Your task to perform on an android device: open app "WhatsApp Messenger" (install if not already installed) Image 0: 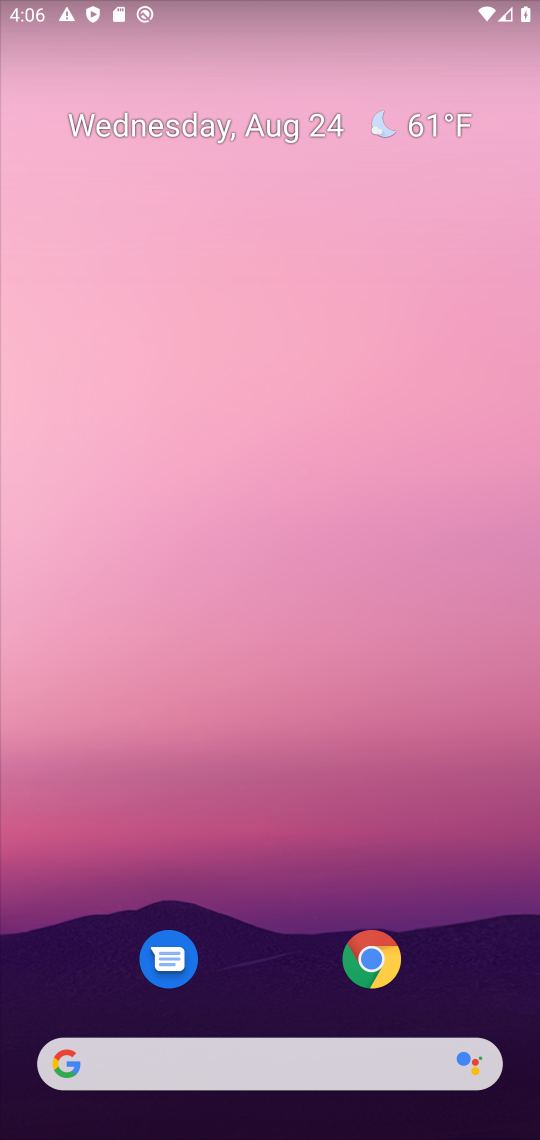
Step 0: drag from (279, 1025) to (260, 177)
Your task to perform on an android device: open app "WhatsApp Messenger" (install if not already installed) Image 1: 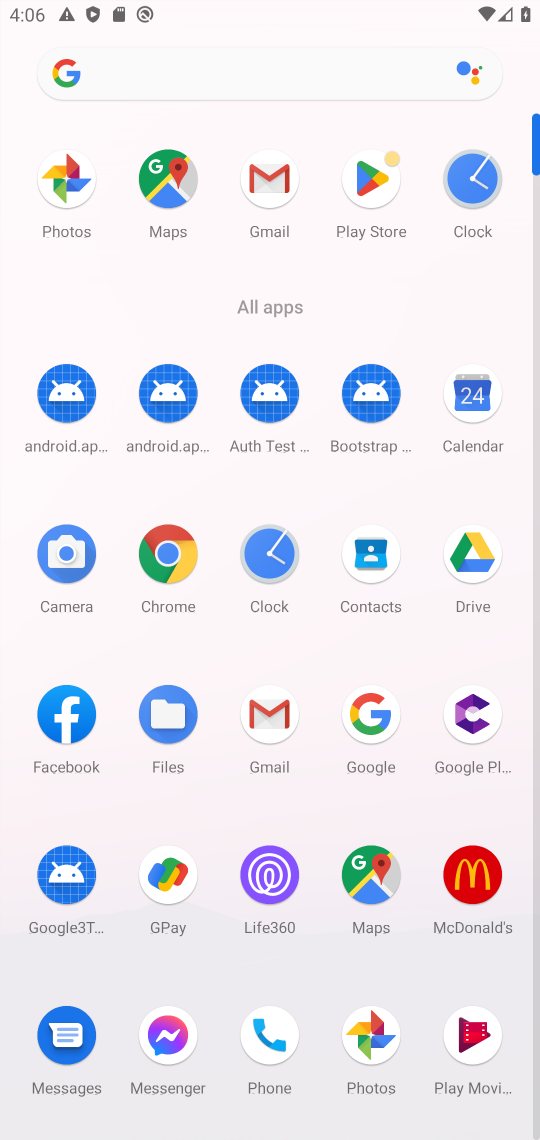
Step 1: click (370, 167)
Your task to perform on an android device: open app "WhatsApp Messenger" (install if not already installed) Image 2: 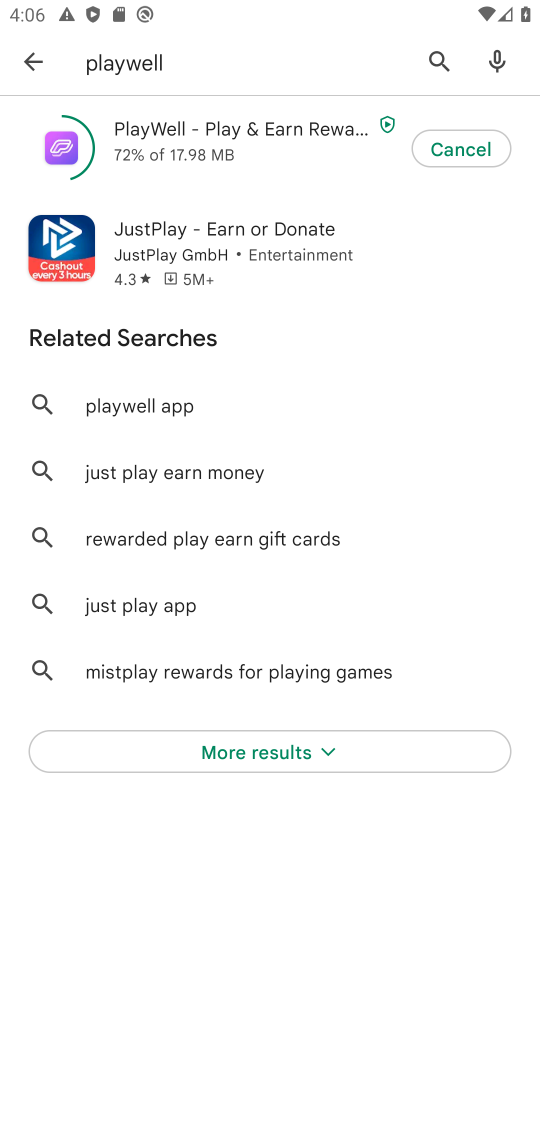
Step 2: click (427, 80)
Your task to perform on an android device: open app "WhatsApp Messenger" (install if not already installed) Image 3: 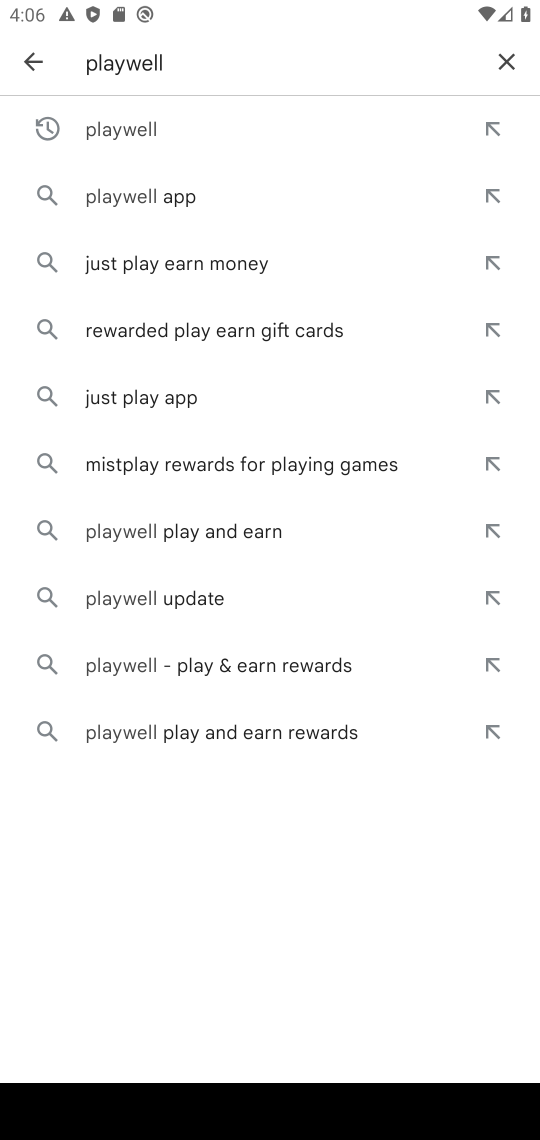
Step 3: click (508, 59)
Your task to perform on an android device: open app "WhatsApp Messenger" (install if not already installed) Image 4: 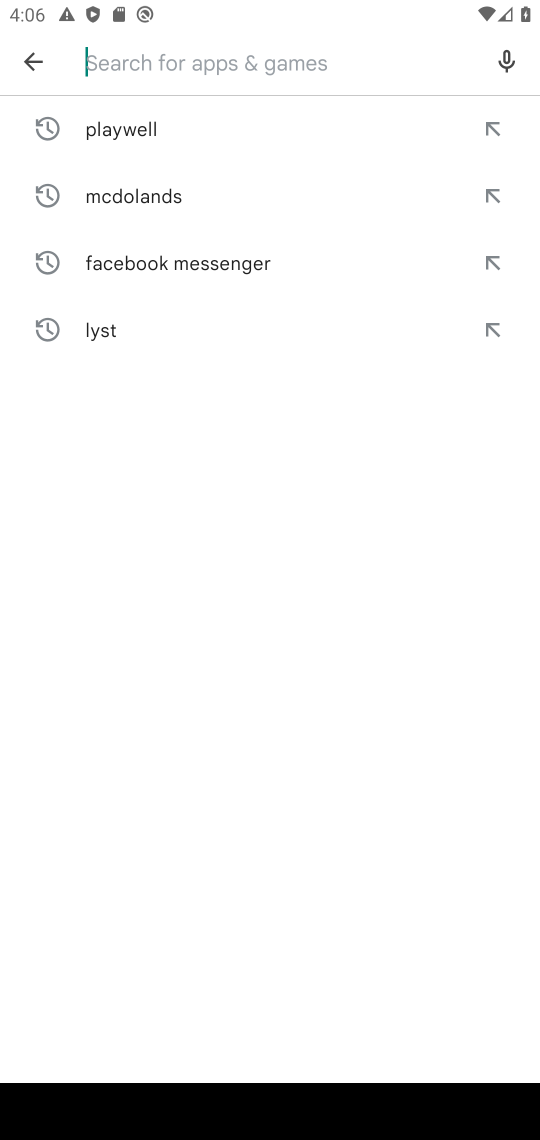
Step 4: type "whatsapp"
Your task to perform on an android device: open app "WhatsApp Messenger" (install if not already installed) Image 5: 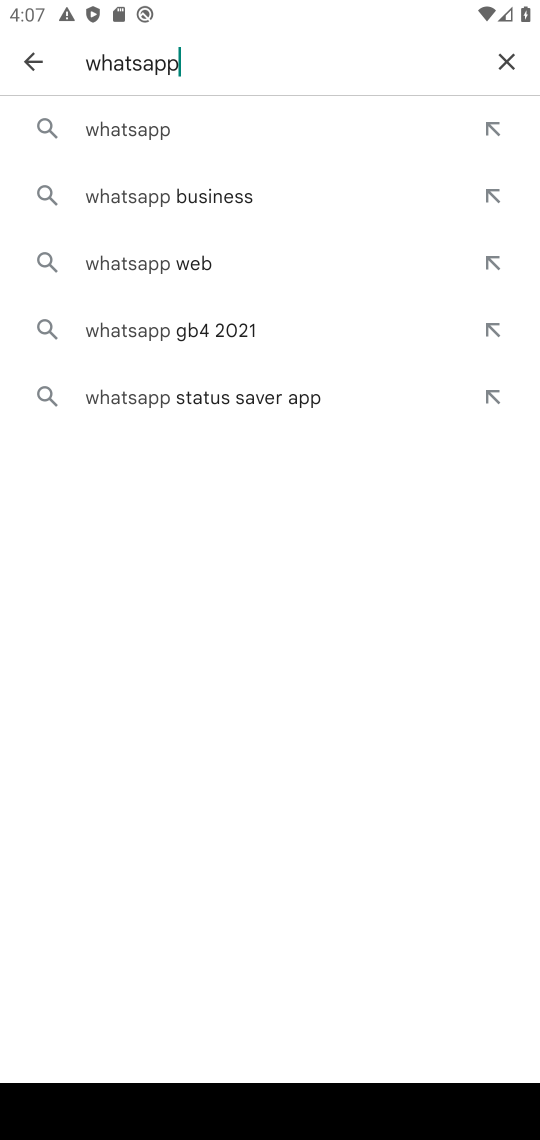
Step 5: click (385, 124)
Your task to perform on an android device: open app "WhatsApp Messenger" (install if not already installed) Image 6: 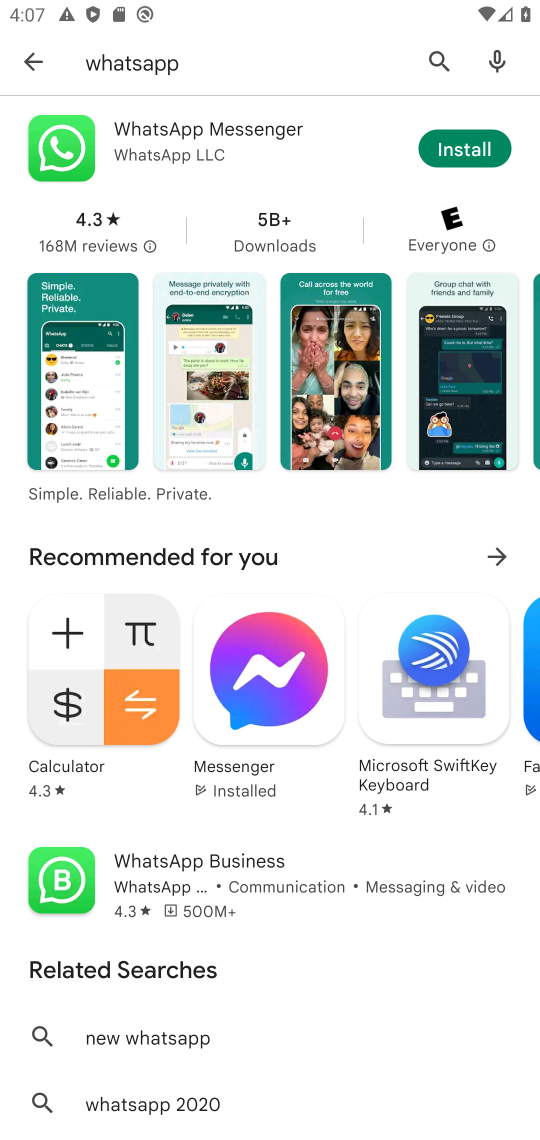
Step 6: click (422, 134)
Your task to perform on an android device: open app "WhatsApp Messenger" (install if not already installed) Image 7: 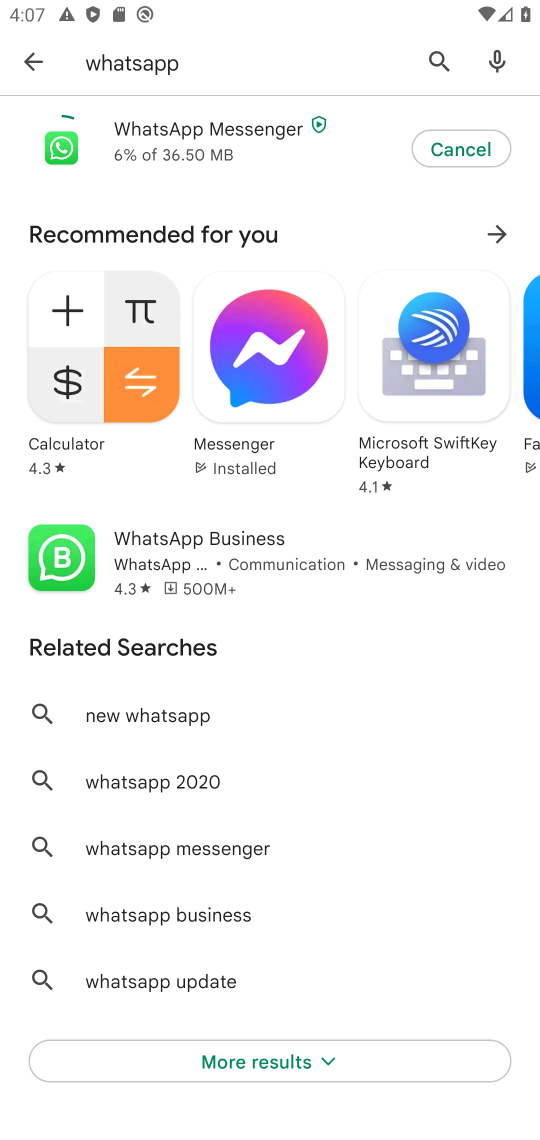
Step 7: task complete